Your task to perform on an android device: check storage Image 0: 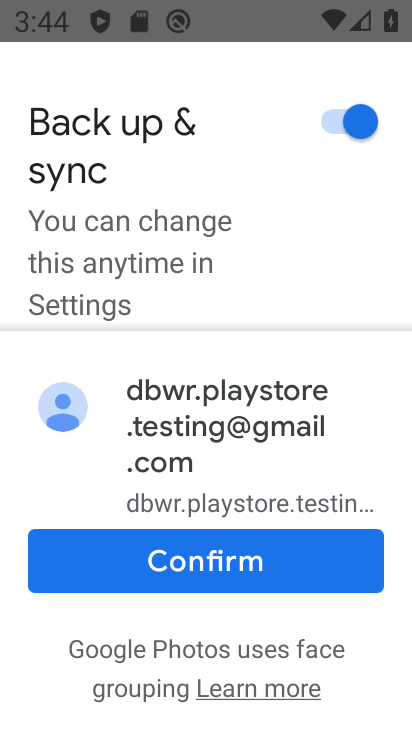
Step 0: press home button
Your task to perform on an android device: check storage Image 1: 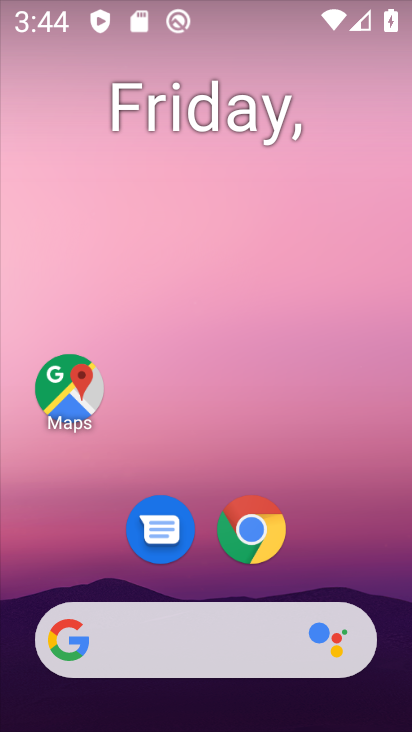
Step 1: drag from (114, 622) to (245, 102)
Your task to perform on an android device: check storage Image 2: 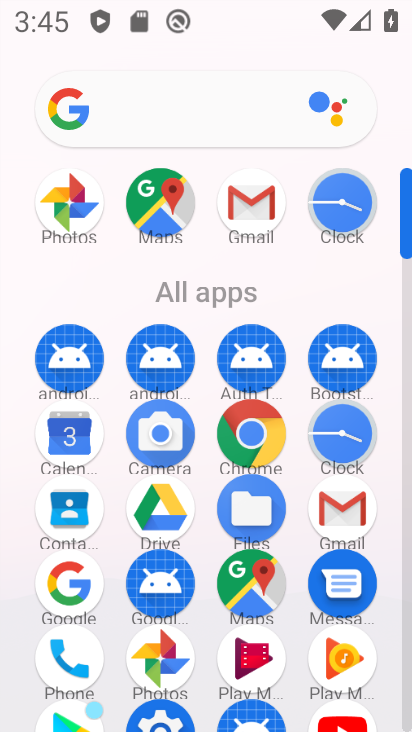
Step 2: click (248, 409)
Your task to perform on an android device: check storage Image 3: 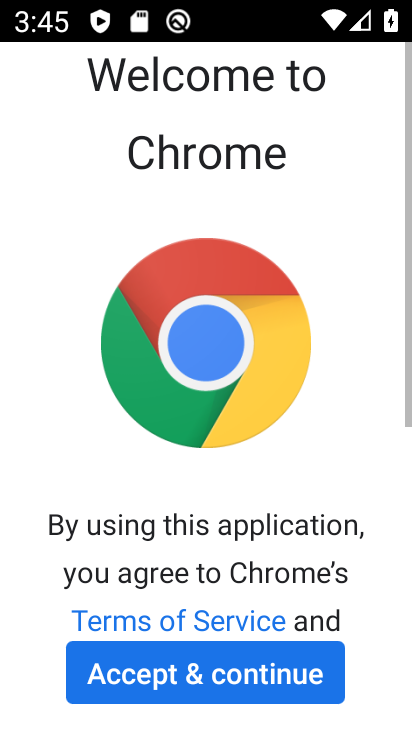
Step 3: press home button
Your task to perform on an android device: check storage Image 4: 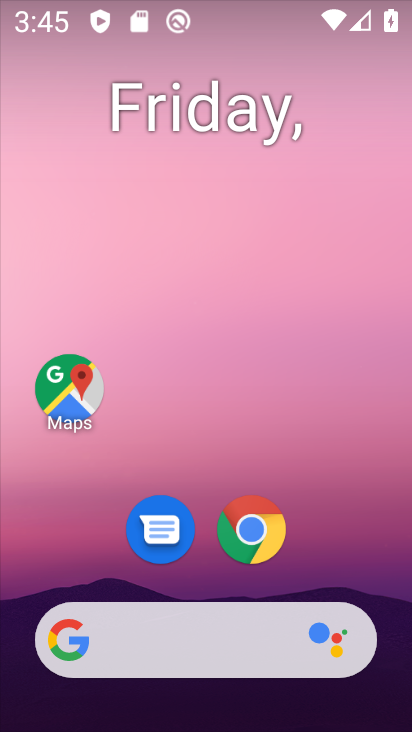
Step 4: drag from (57, 590) to (200, 142)
Your task to perform on an android device: check storage Image 5: 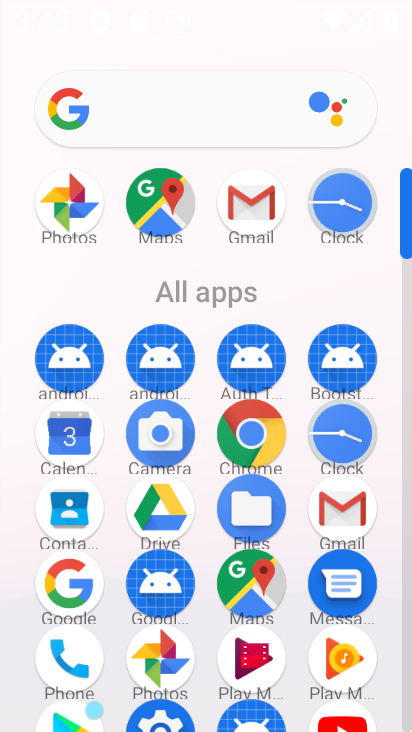
Step 5: drag from (177, 653) to (247, 370)
Your task to perform on an android device: check storage Image 6: 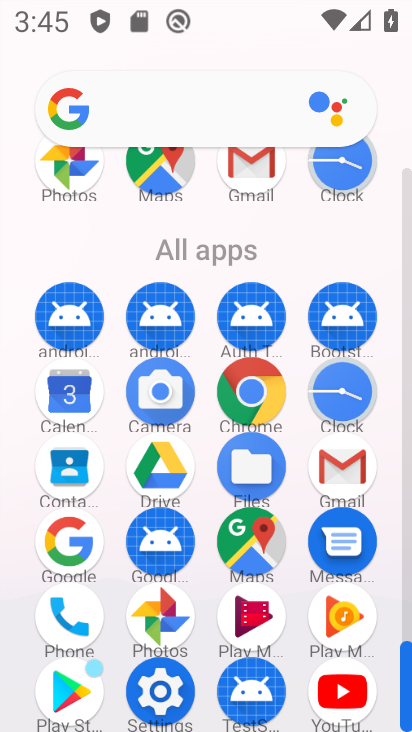
Step 6: click (159, 698)
Your task to perform on an android device: check storage Image 7: 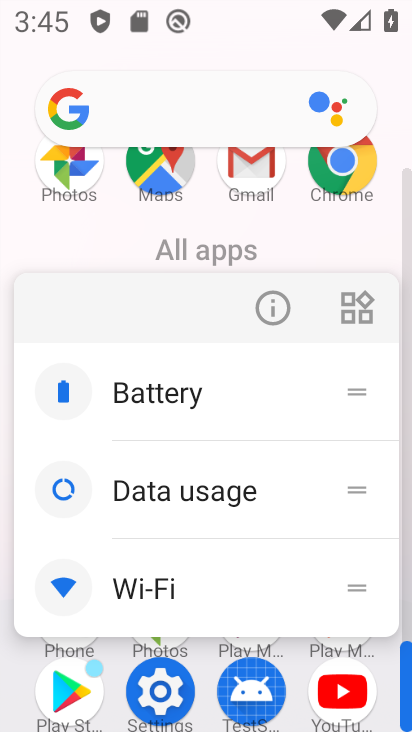
Step 7: click (175, 691)
Your task to perform on an android device: check storage Image 8: 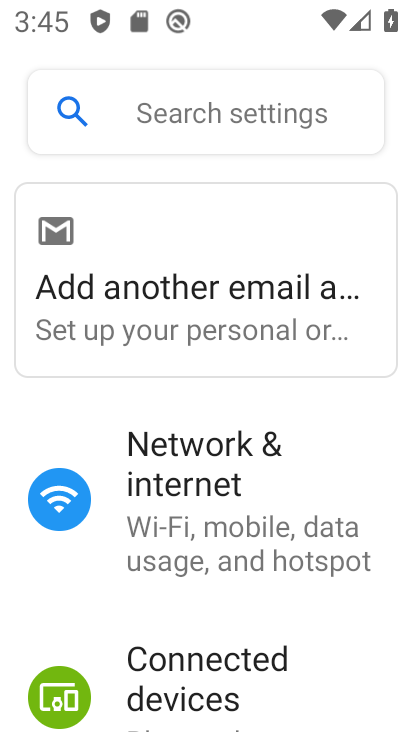
Step 8: drag from (175, 654) to (314, 211)
Your task to perform on an android device: check storage Image 9: 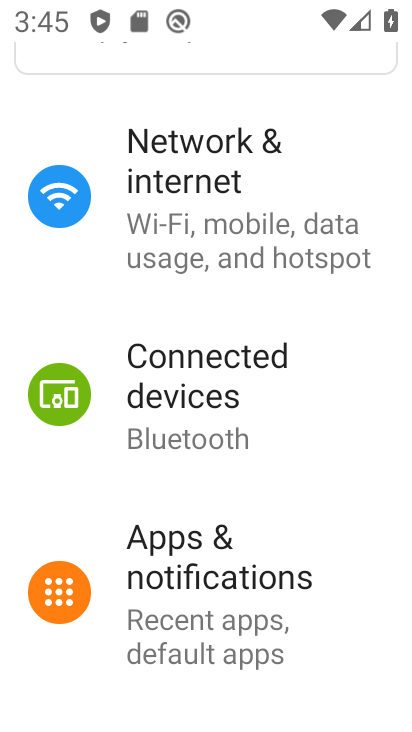
Step 9: drag from (190, 641) to (324, 184)
Your task to perform on an android device: check storage Image 10: 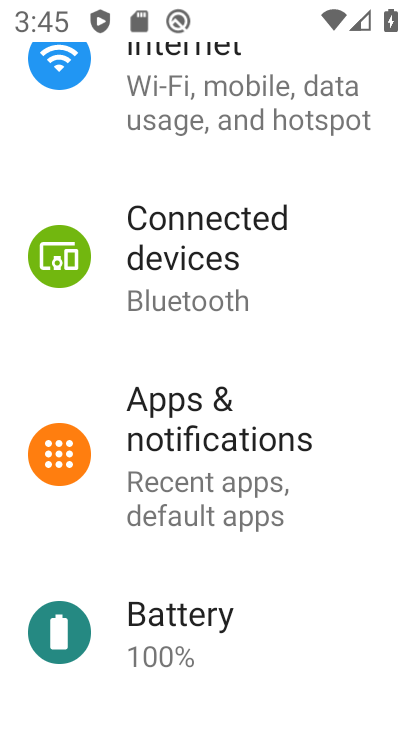
Step 10: drag from (155, 631) to (244, 96)
Your task to perform on an android device: check storage Image 11: 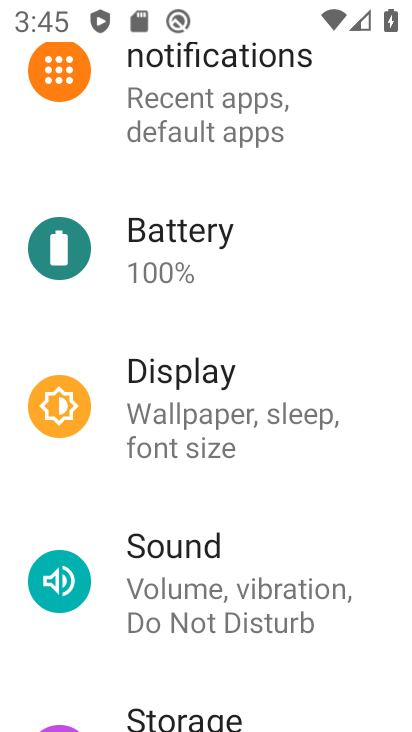
Step 11: drag from (176, 538) to (260, 171)
Your task to perform on an android device: check storage Image 12: 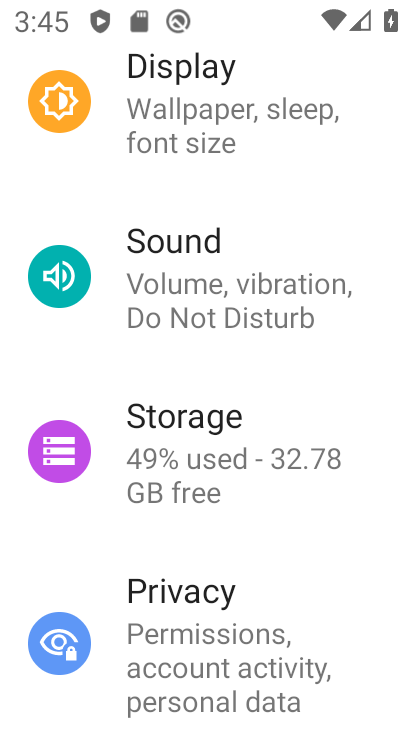
Step 12: click (233, 465)
Your task to perform on an android device: check storage Image 13: 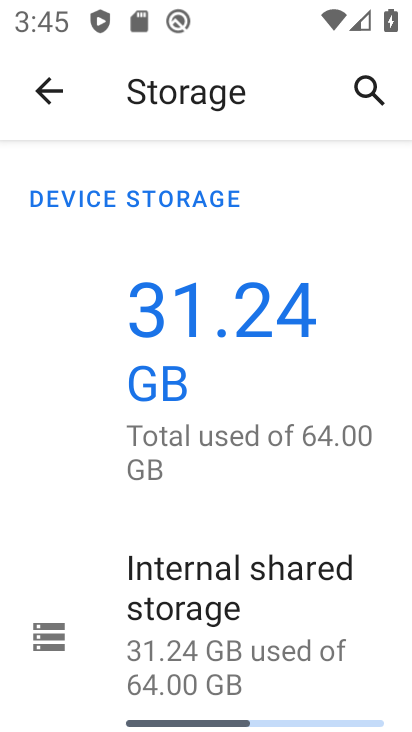
Step 13: task complete